Your task to perform on an android device: Open Reddit.com Image 0: 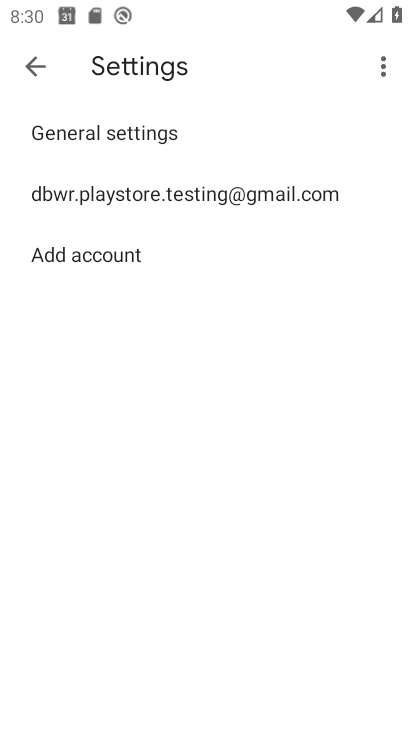
Step 0: press home button
Your task to perform on an android device: Open Reddit.com Image 1: 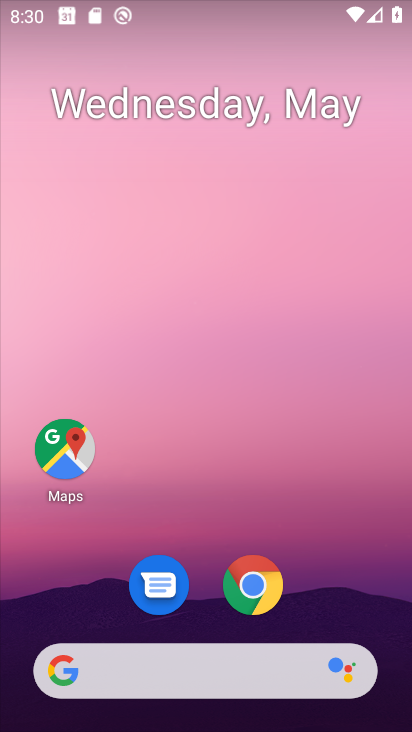
Step 1: click (248, 674)
Your task to perform on an android device: Open Reddit.com Image 2: 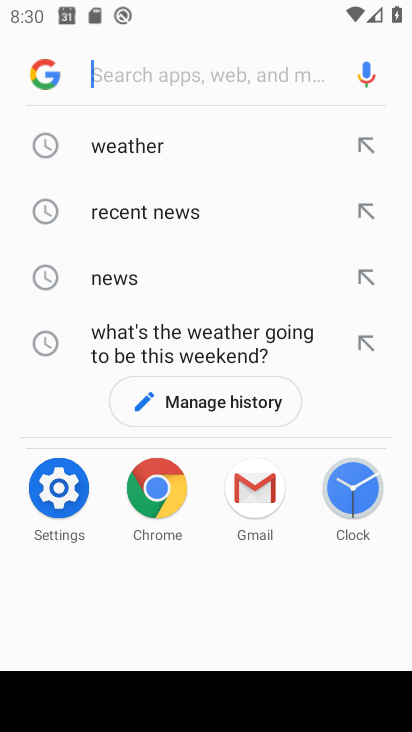
Step 2: type "reddit.com"
Your task to perform on an android device: Open Reddit.com Image 3: 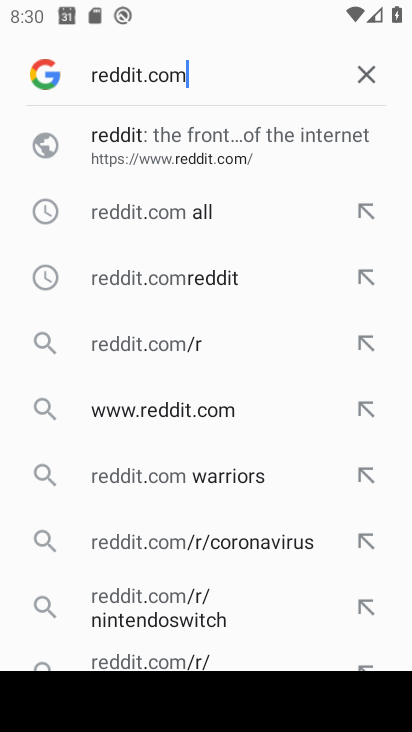
Step 3: click (93, 147)
Your task to perform on an android device: Open Reddit.com Image 4: 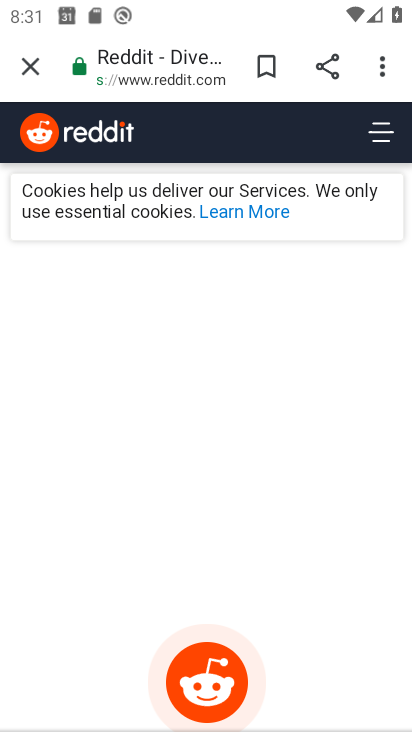
Step 4: task complete